Your task to perform on an android device: create a new album in the google photos Image 0: 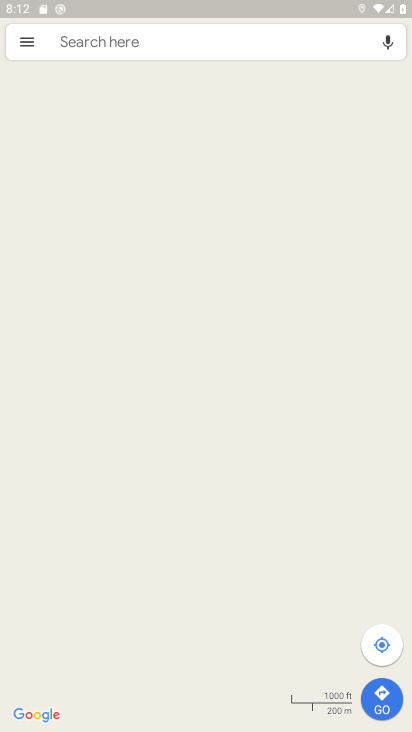
Step 0: press home button
Your task to perform on an android device: create a new album in the google photos Image 1: 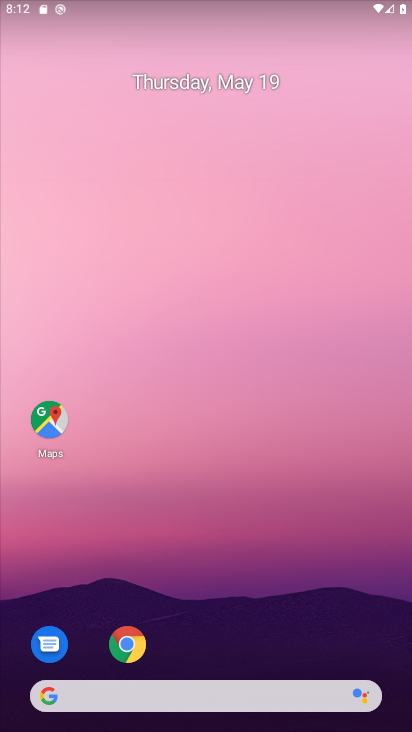
Step 1: drag from (373, 610) to (307, 176)
Your task to perform on an android device: create a new album in the google photos Image 2: 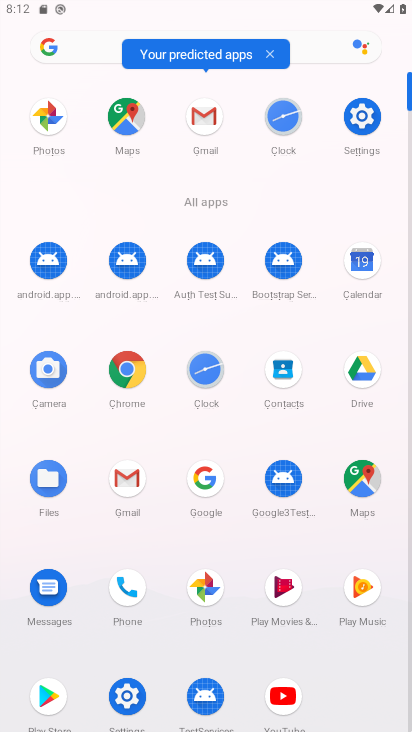
Step 2: click (202, 584)
Your task to perform on an android device: create a new album in the google photos Image 3: 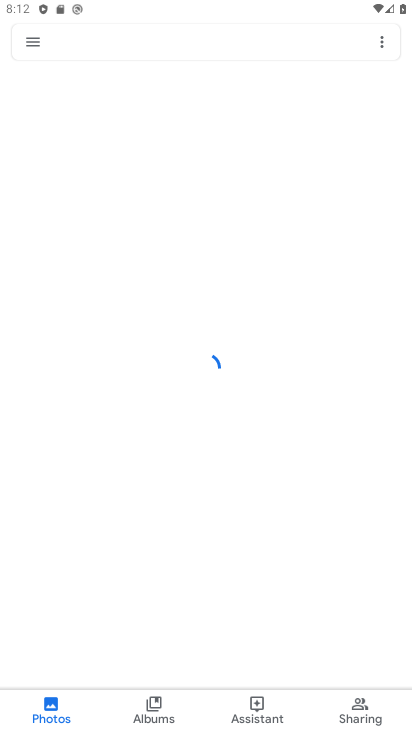
Step 3: click (146, 703)
Your task to perform on an android device: create a new album in the google photos Image 4: 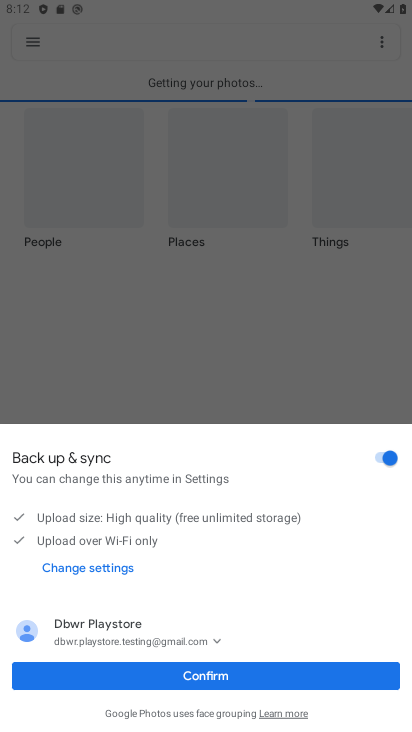
Step 4: click (196, 674)
Your task to perform on an android device: create a new album in the google photos Image 5: 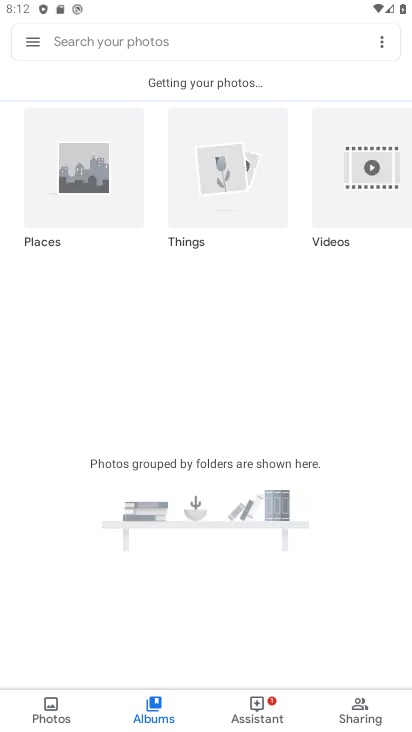
Step 5: task complete